Your task to perform on an android device: Go to settings Image 0: 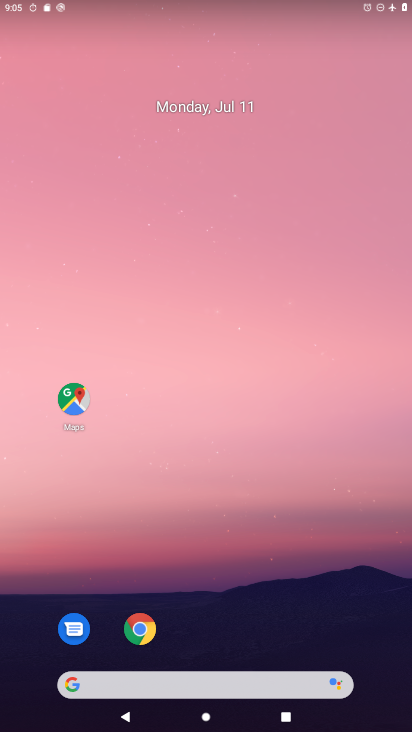
Step 0: drag from (208, 590) to (229, 22)
Your task to perform on an android device: Go to settings Image 1: 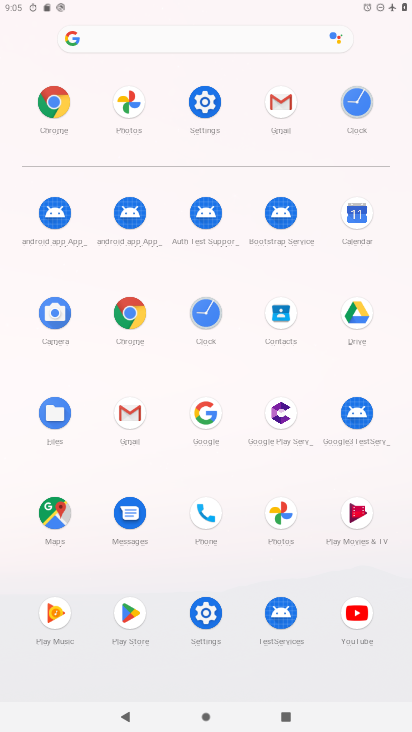
Step 1: click (198, 108)
Your task to perform on an android device: Go to settings Image 2: 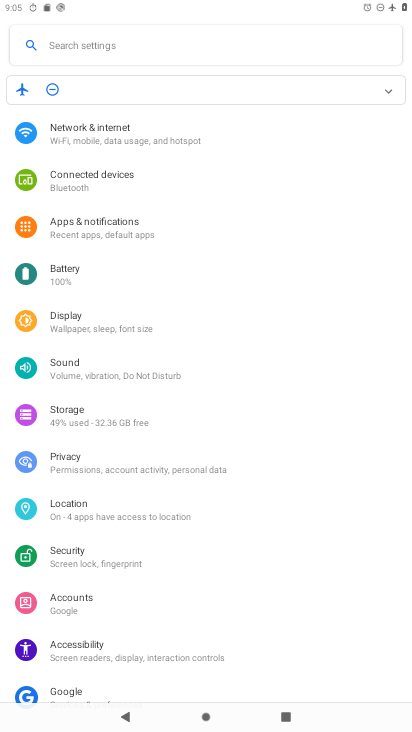
Step 2: task complete